Your task to perform on an android device: Open Chrome and go to settings Image 0: 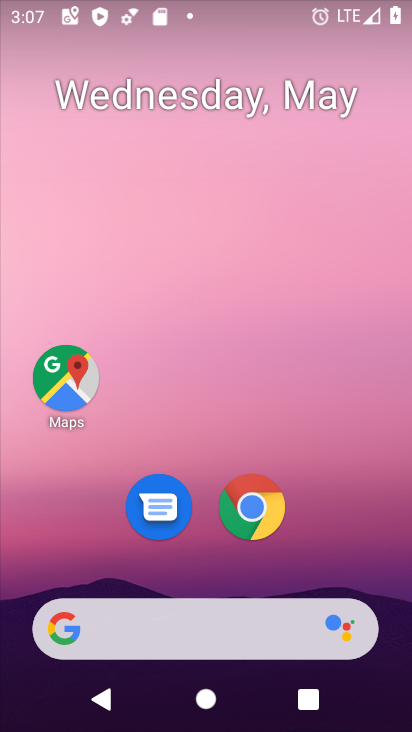
Step 0: click (253, 510)
Your task to perform on an android device: Open Chrome and go to settings Image 1: 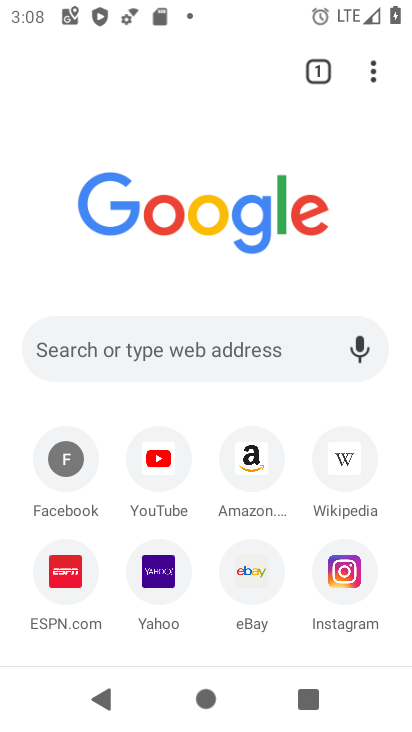
Step 1: click (372, 70)
Your task to perform on an android device: Open Chrome and go to settings Image 2: 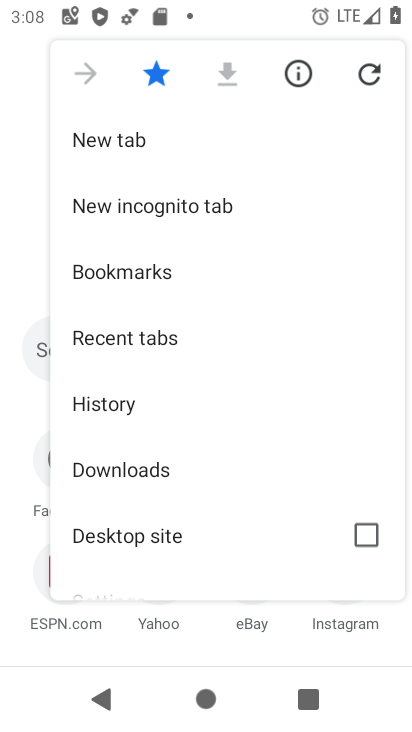
Step 2: drag from (145, 455) to (176, 390)
Your task to perform on an android device: Open Chrome and go to settings Image 3: 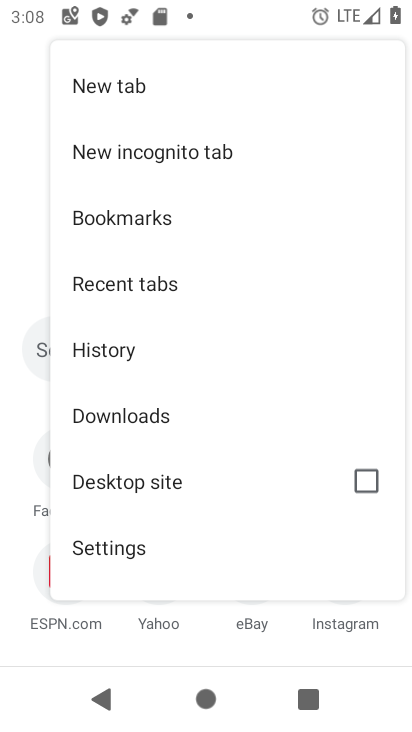
Step 3: drag from (157, 523) to (222, 411)
Your task to perform on an android device: Open Chrome and go to settings Image 4: 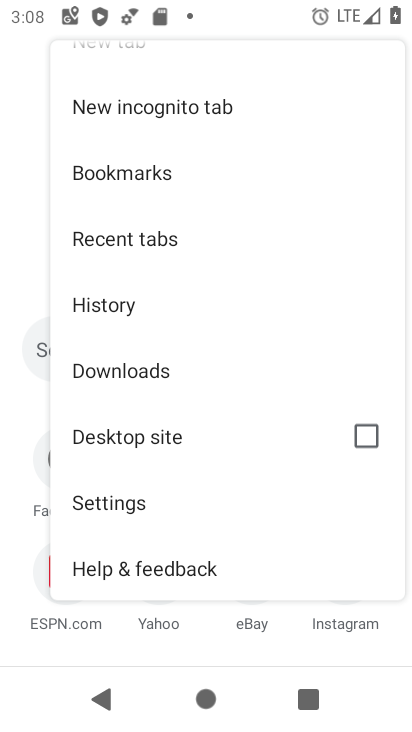
Step 4: click (125, 504)
Your task to perform on an android device: Open Chrome and go to settings Image 5: 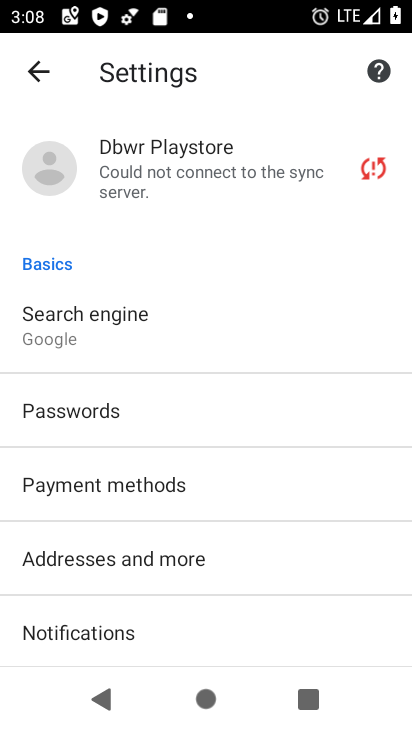
Step 5: task complete